Your task to perform on an android device: Open the Play Movies app and select the watchlist tab. Image 0: 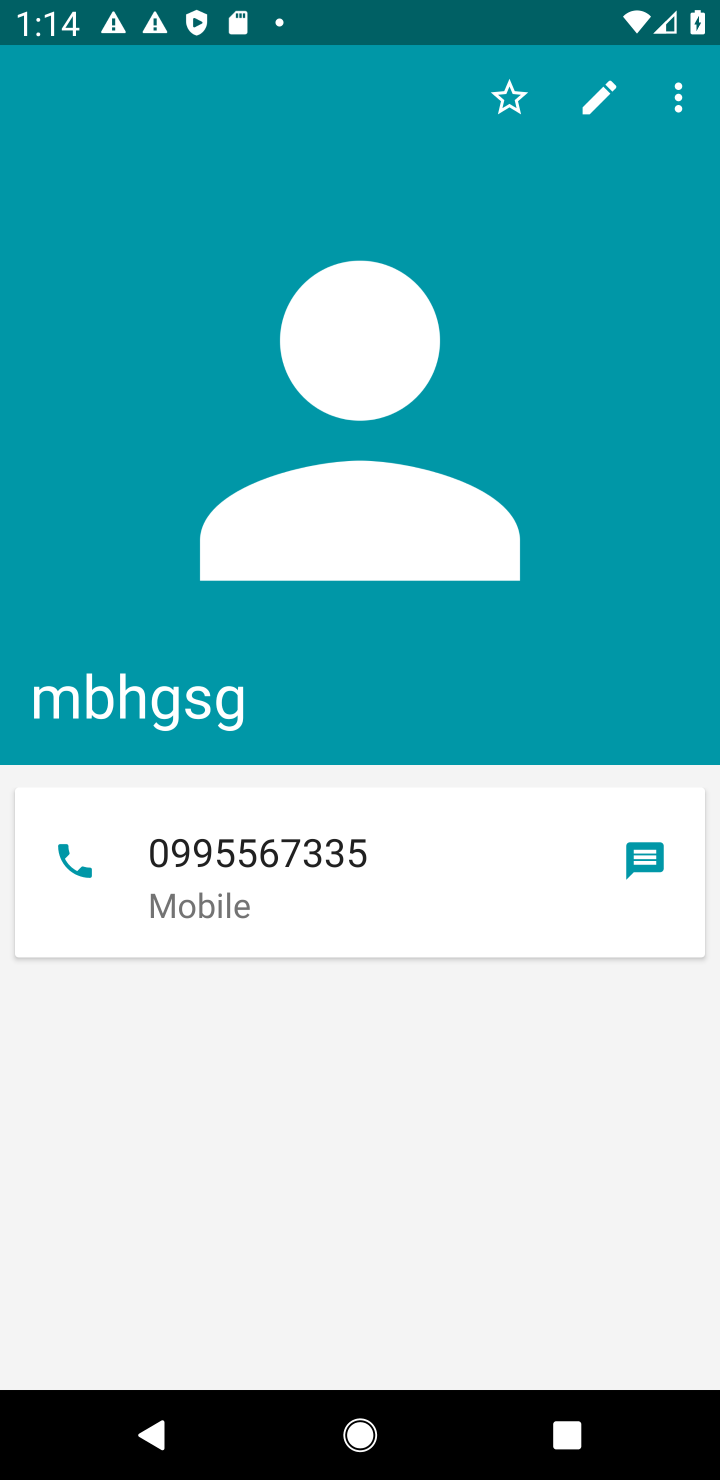
Step 0: press home button
Your task to perform on an android device: Open the Play Movies app and select the watchlist tab. Image 1: 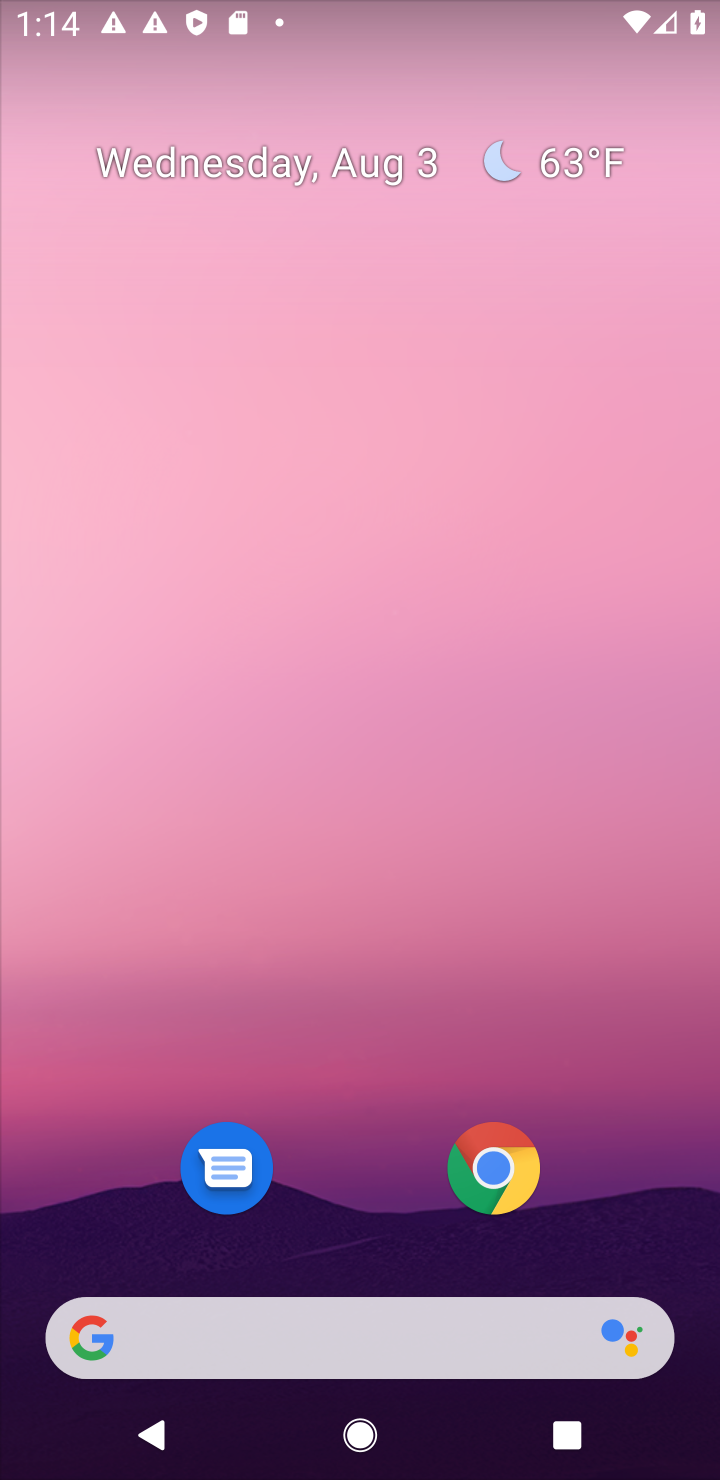
Step 1: drag from (641, 1036) to (653, 236)
Your task to perform on an android device: Open the Play Movies app and select the watchlist tab. Image 2: 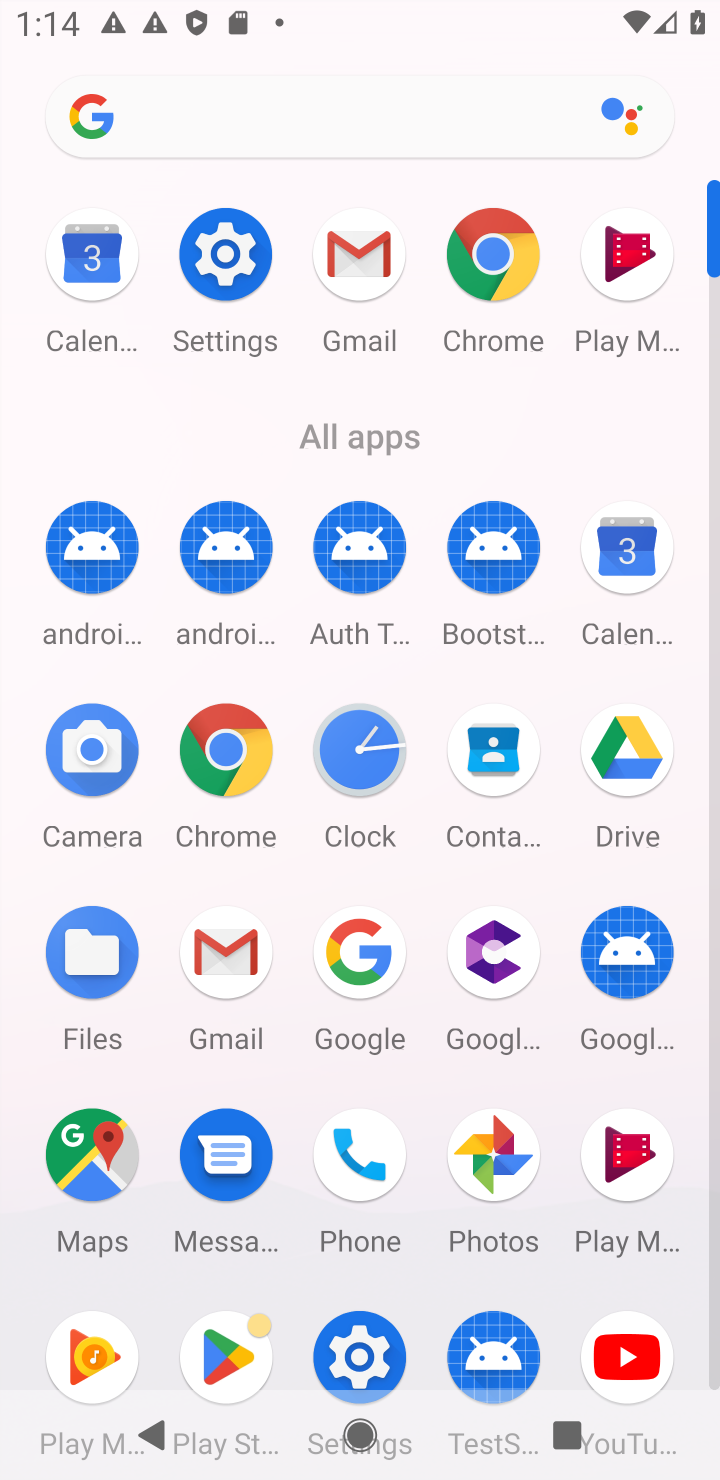
Step 2: click (627, 1148)
Your task to perform on an android device: Open the Play Movies app and select the watchlist tab. Image 3: 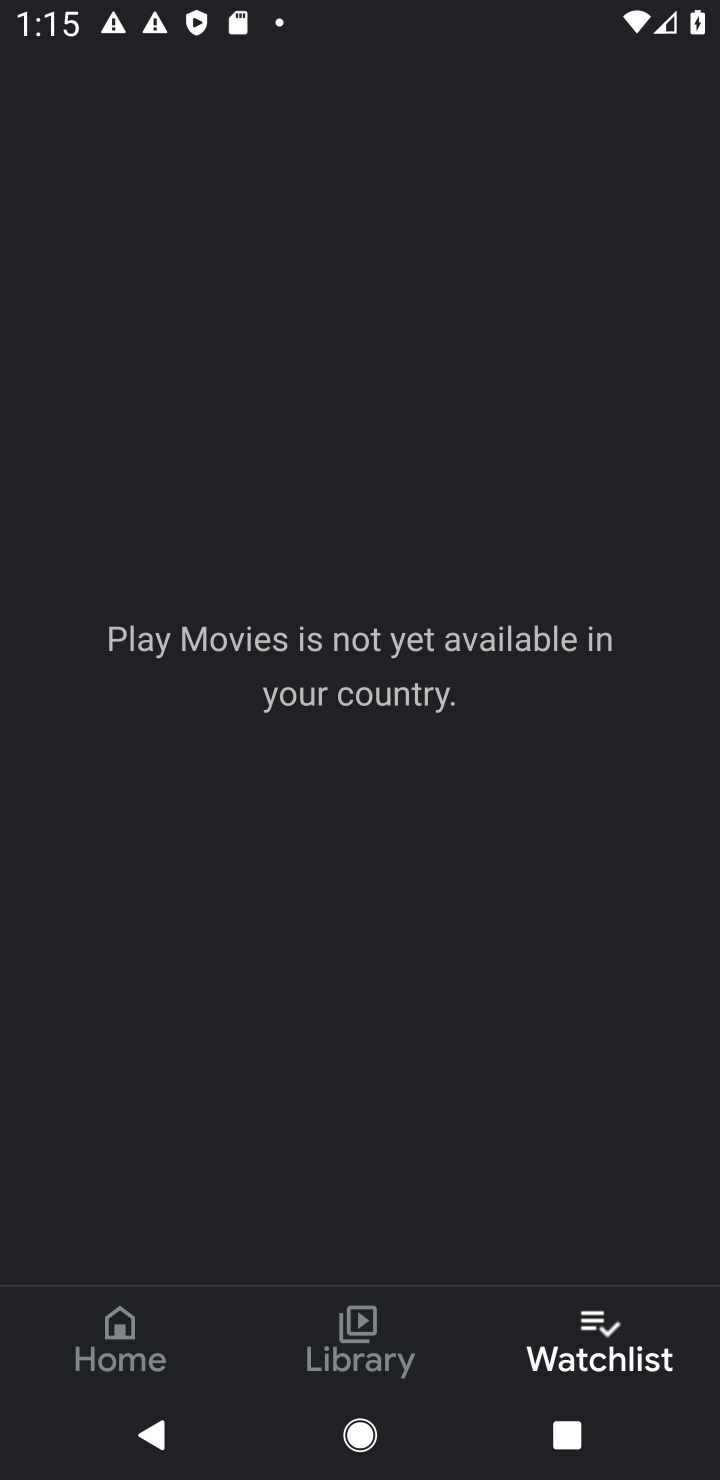
Step 3: task complete